Your task to perform on an android device: Open Google Maps Image 0: 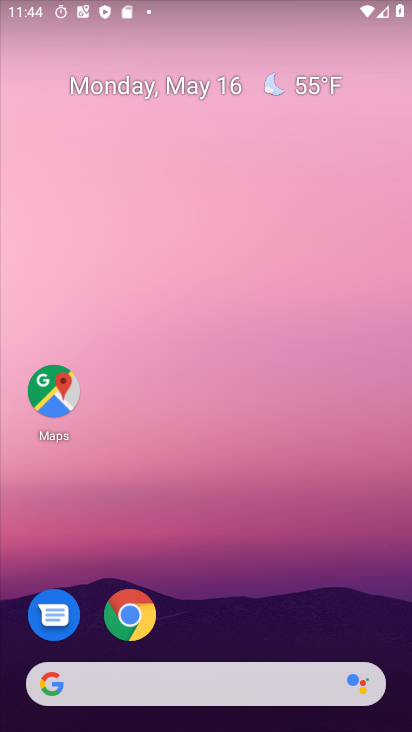
Step 0: click (57, 386)
Your task to perform on an android device: Open Google Maps Image 1: 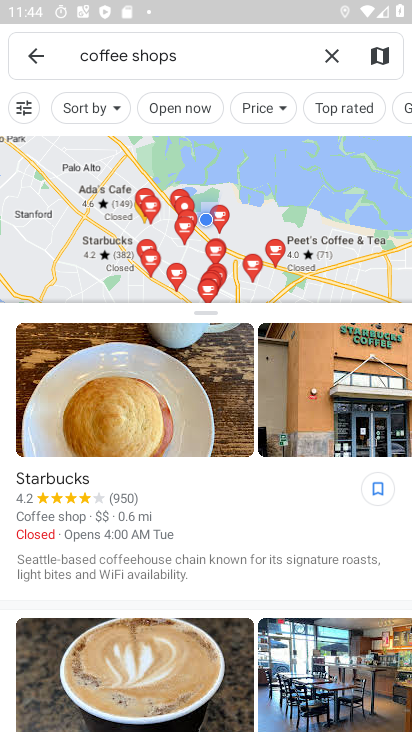
Step 1: click (28, 54)
Your task to perform on an android device: Open Google Maps Image 2: 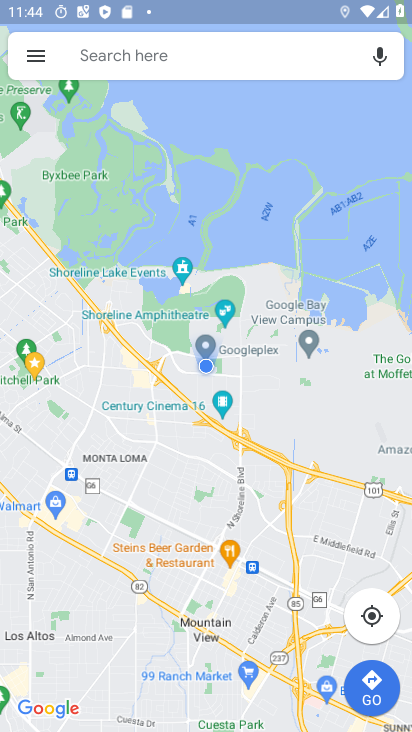
Step 2: task complete